Your task to perform on an android device: Go to Reddit.com Image 0: 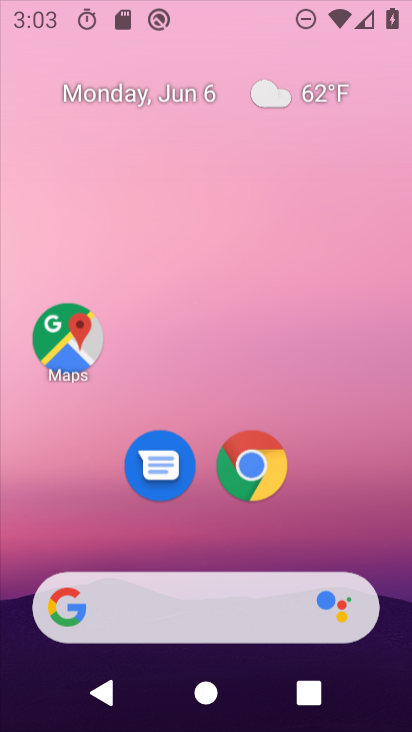
Step 0: click (218, 207)
Your task to perform on an android device: Go to Reddit.com Image 1: 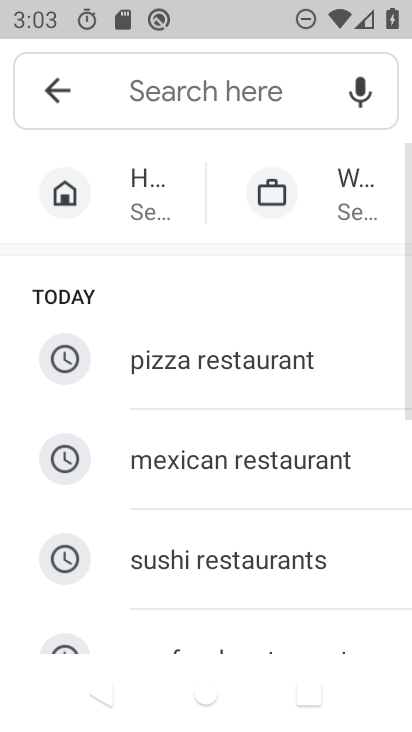
Step 1: press home button
Your task to perform on an android device: Go to Reddit.com Image 2: 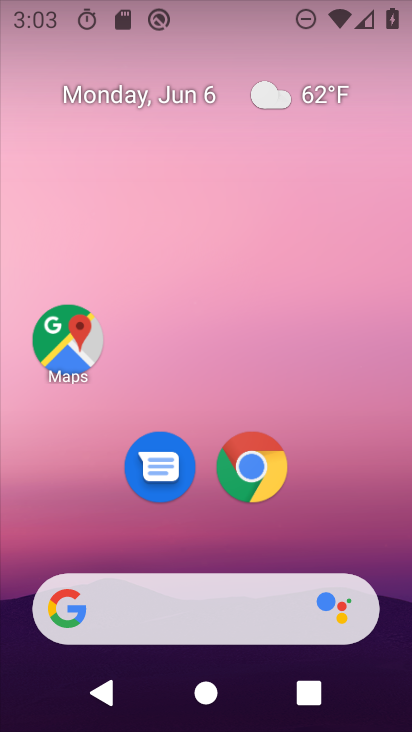
Step 2: drag from (180, 543) to (311, 7)
Your task to perform on an android device: Go to Reddit.com Image 3: 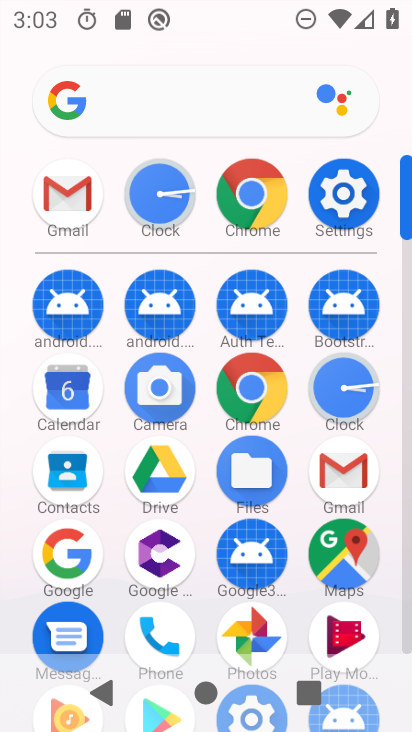
Step 3: click (249, 205)
Your task to perform on an android device: Go to Reddit.com Image 4: 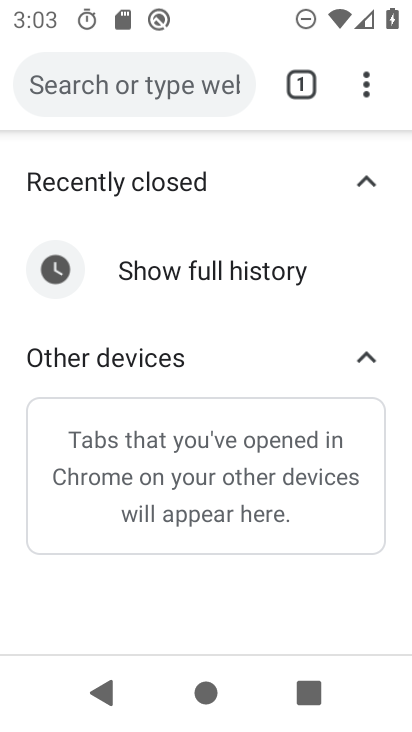
Step 4: press back button
Your task to perform on an android device: Go to Reddit.com Image 5: 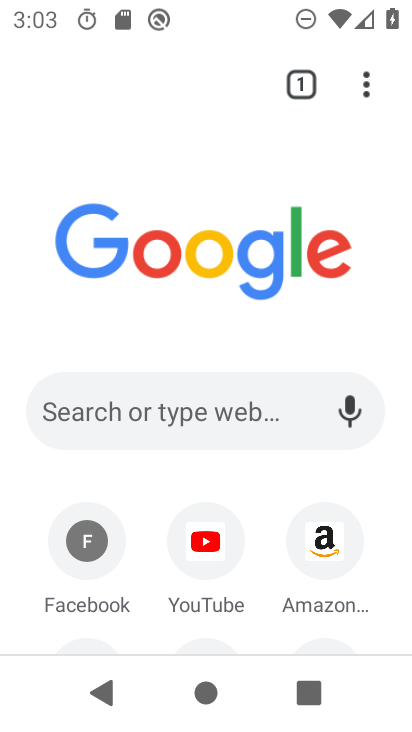
Step 5: click (198, 401)
Your task to perform on an android device: Go to Reddit.com Image 6: 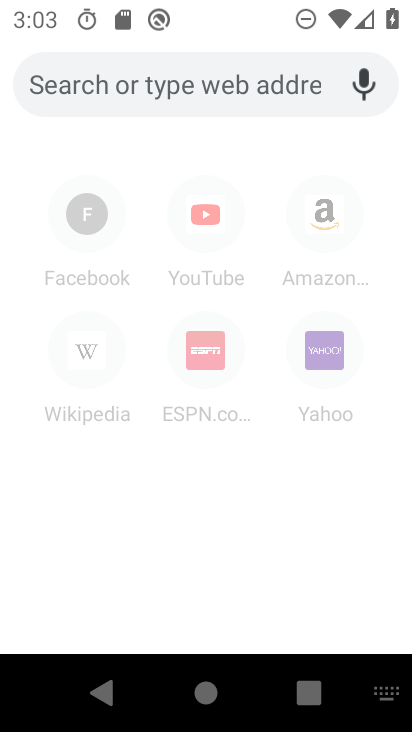
Step 6: type "www.reddit.com"
Your task to perform on an android device: Go to Reddit.com Image 7: 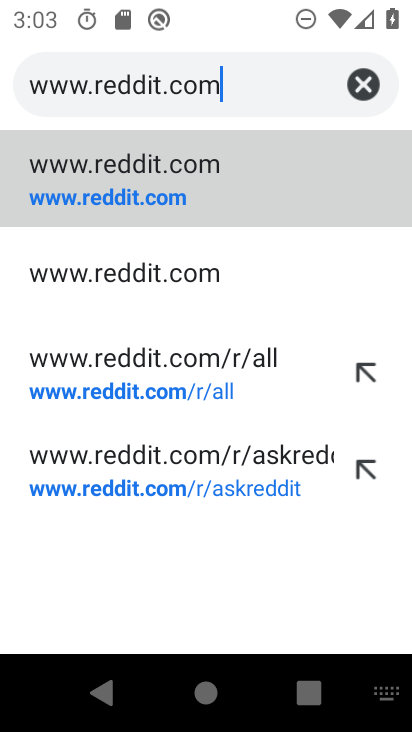
Step 7: click (130, 190)
Your task to perform on an android device: Go to Reddit.com Image 8: 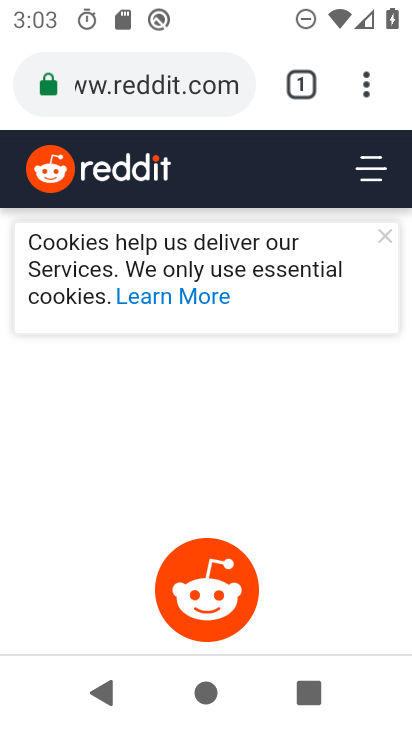
Step 8: task complete